Your task to perform on an android device: turn off airplane mode Image 0: 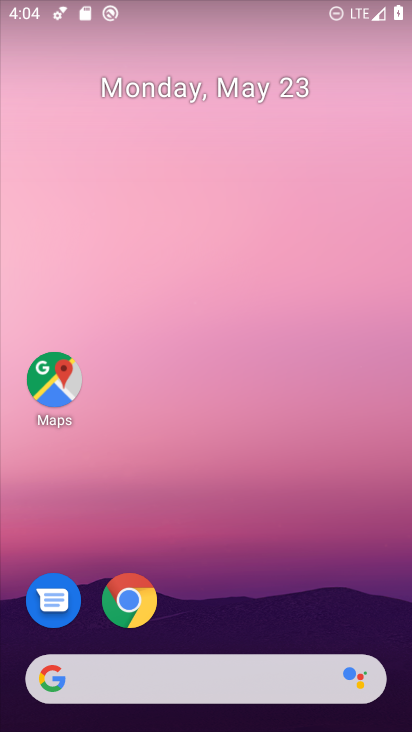
Step 0: drag from (286, 630) to (308, 8)
Your task to perform on an android device: turn off airplane mode Image 1: 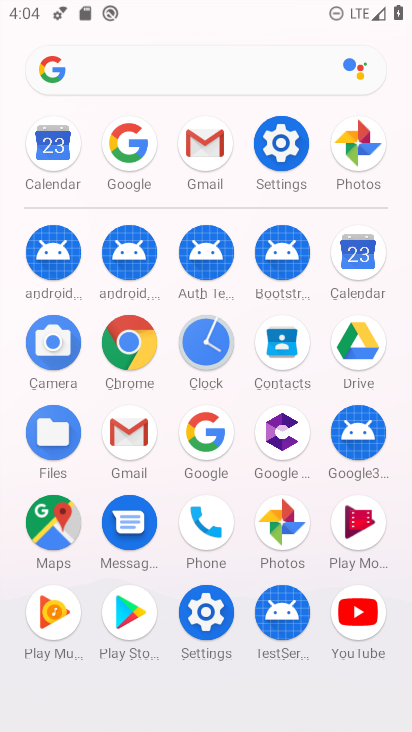
Step 1: click (266, 140)
Your task to perform on an android device: turn off airplane mode Image 2: 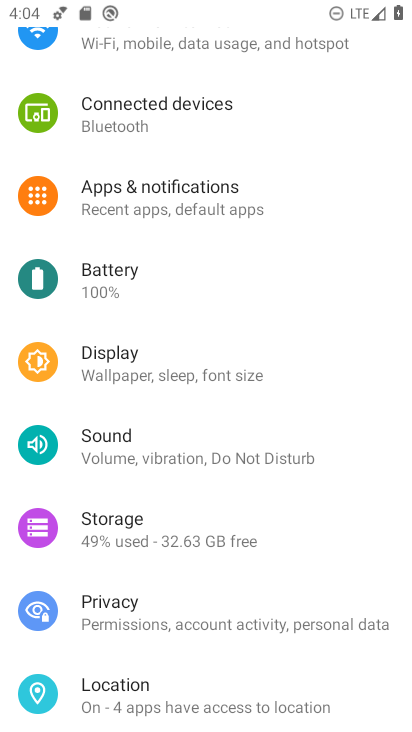
Step 2: drag from (387, 173) to (391, 730)
Your task to perform on an android device: turn off airplane mode Image 3: 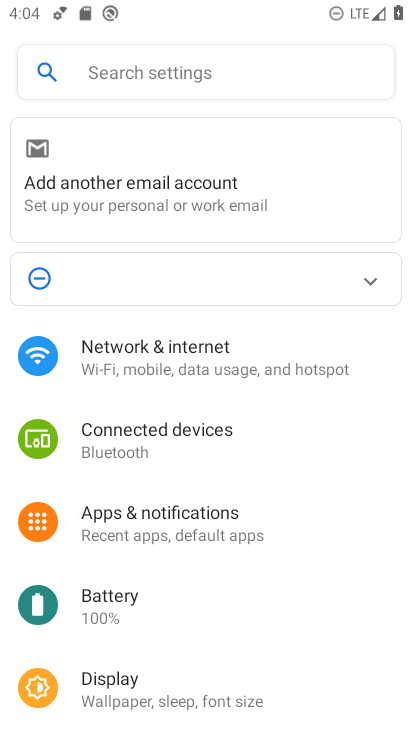
Step 3: click (227, 366)
Your task to perform on an android device: turn off airplane mode Image 4: 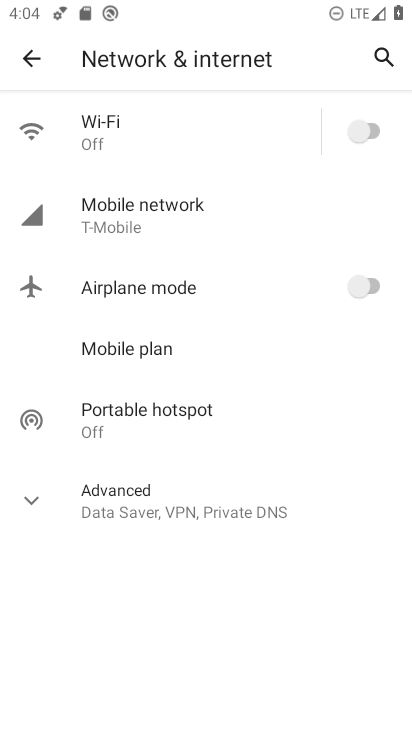
Step 4: task complete